Your task to perform on an android device: Open privacy settings Image 0: 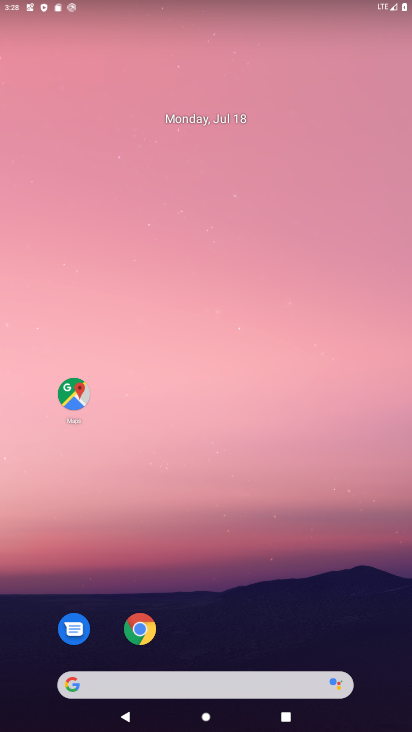
Step 0: drag from (240, 618) to (240, 116)
Your task to perform on an android device: Open privacy settings Image 1: 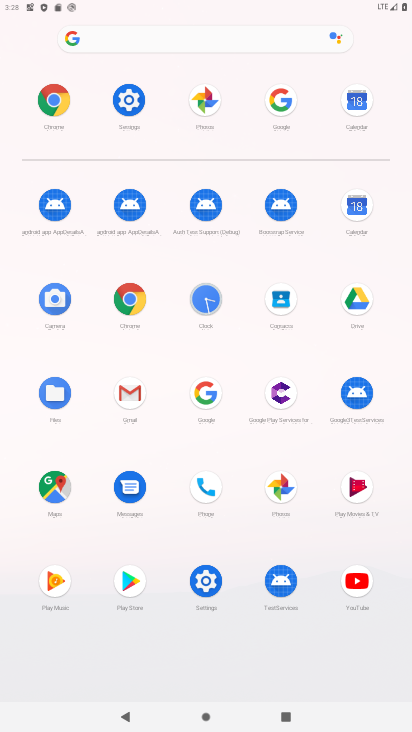
Step 1: click (131, 98)
Your task to perform on an android device: Open privacy settings Image 2: 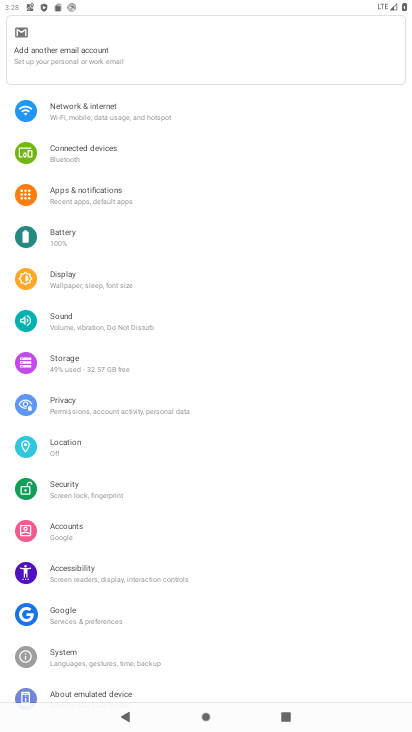
Step 2: drag from (140, 625) to (161, 372)
Your task to perform on an android device: Open privacy settings Image 3: 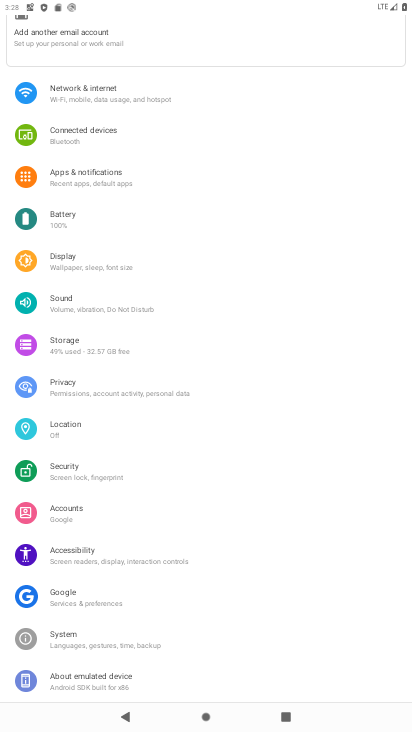
Step 3: click (97, 394)
Your task to perform on an android device: Open privacy settings Image 4: 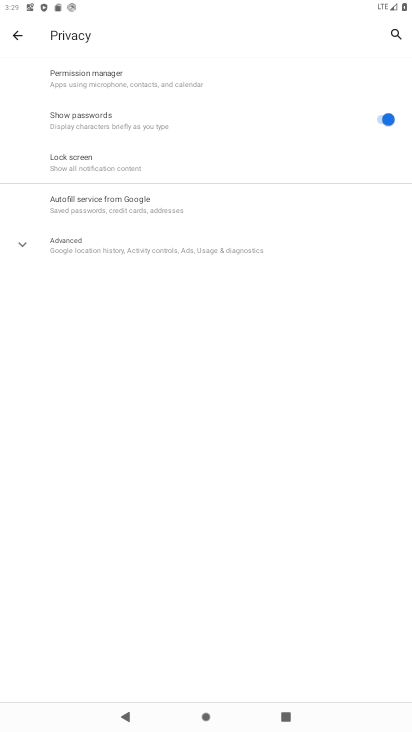
Step 4: task complete